Your task to perform on an android device: open app "Gboard" Image 0: 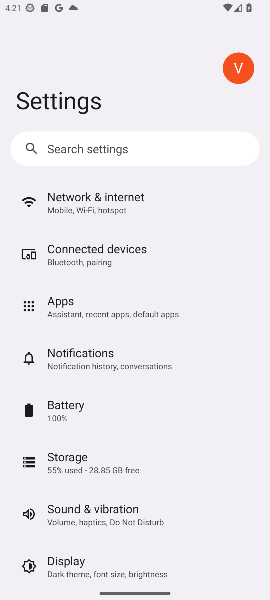
Step 0: press home button
Your task to perform on an android device: open app "Gboard" Image 1: 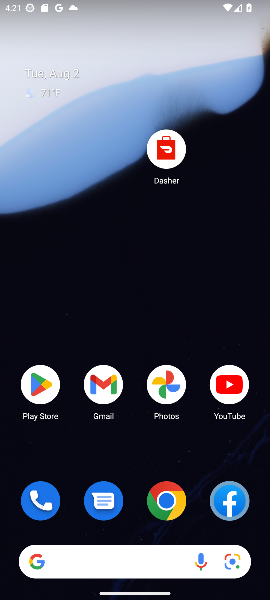
Step 1: click (29, 395)
Your task to perform on an android device: open app "Gboard" Image 2: 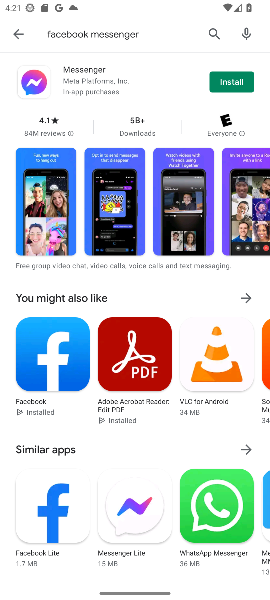
Step 2: click (207, 30)
Your task to perform on an android device: open app "Gboard" Image 3: 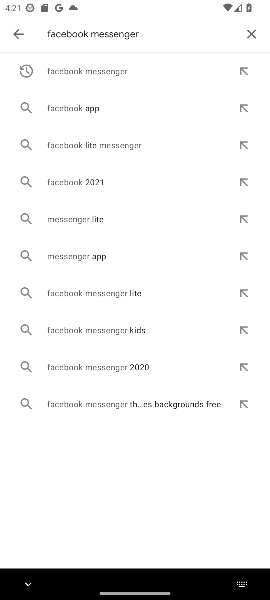
Step 3: click (246, 30)
Your task to perform on an android device: open app "Gboard" Image 4: 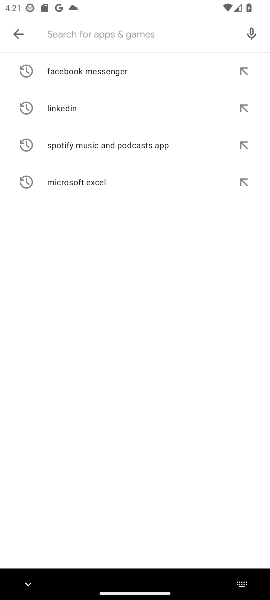
Step 4: type "Gboard"
Your task to perform on an android device: open app "Gboard" Image 5: 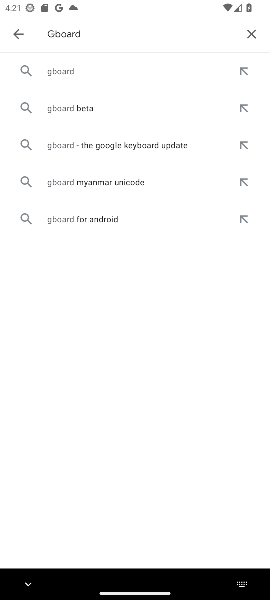
Step 5: click (48, 77)
Your task to perform on an android device: open app "Gboard" Image 6: 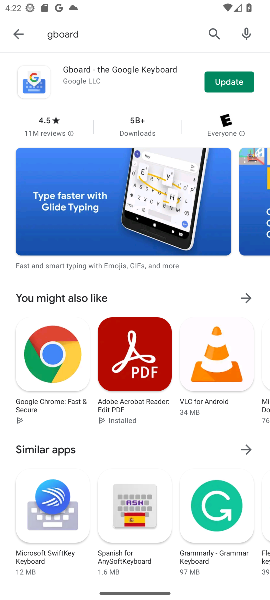
Step 6: click (61, 70)
Your task to perform on an android device: open app "Gboard" Image 7: 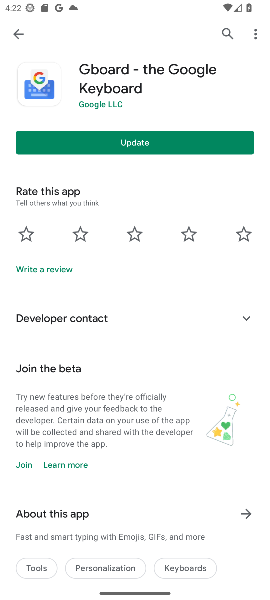
Step 7: click (98, 78)
Your task to perform on an android device: open app "Gboard" Image 8: 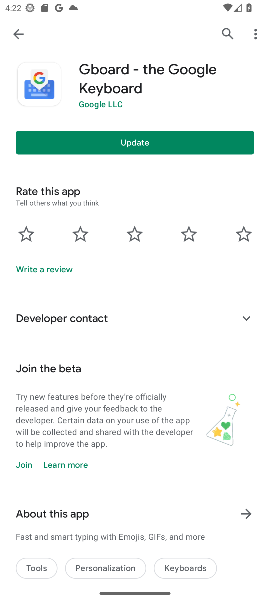
Step 8: task complete